Your task to perform on an android device: Open accessibility settings Image 0: 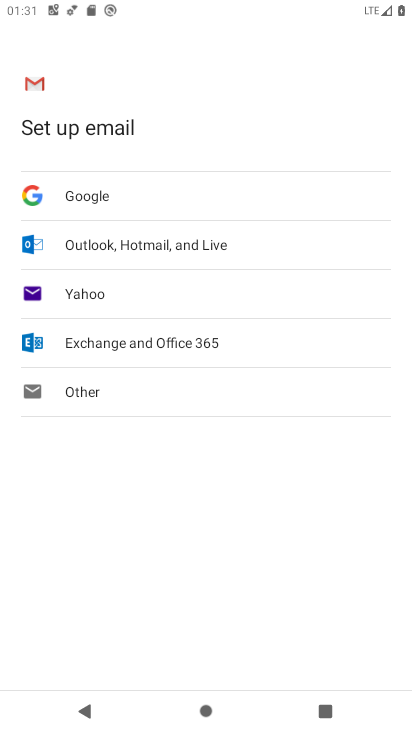
Step 0: press home button
Your task to perform on an android device: Open accessibility settings Image 1: 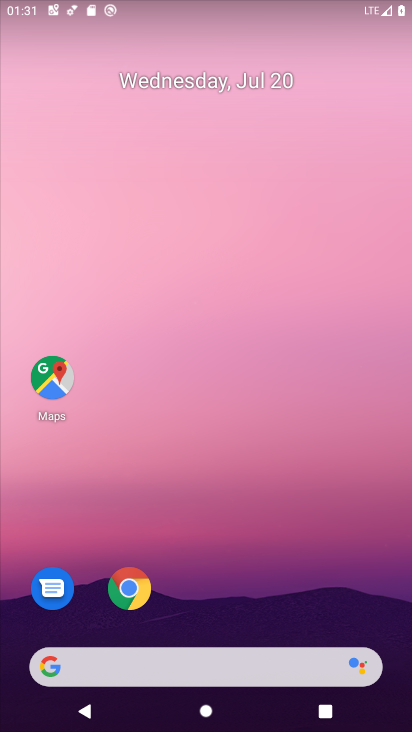
Step 1: drag from (256, 607) to (263, 200)
Your task to perform on an android device: Open accessibility settings Image 2: 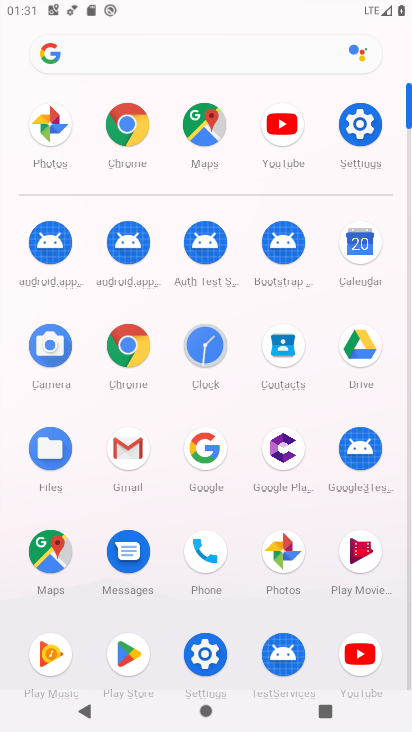
Step 2: click (358, 110)
Your task to perform on an android device: Open accessibility settings Image 3: 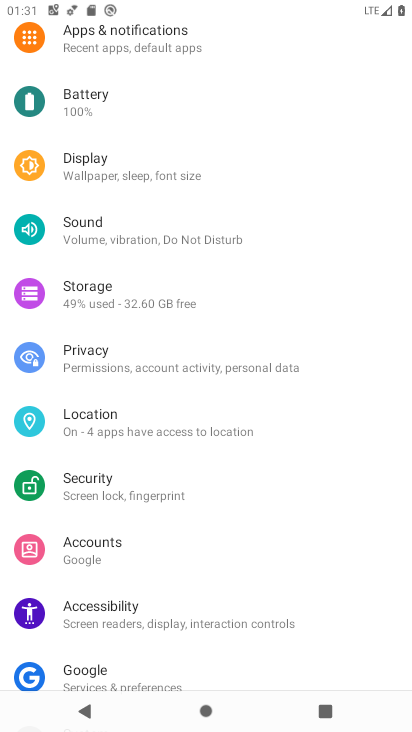
Step 3: click (171, 619)
Your task to perform on an android device: Open accessibility settings Image 4: 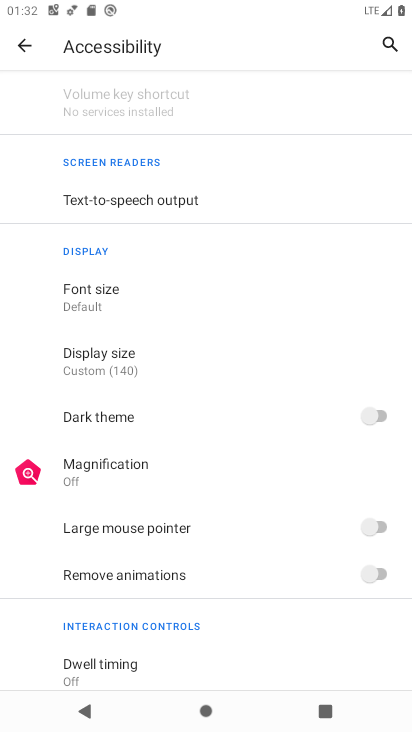
Step 4: task complete